Your task to perform on an android device: Show me recent news Image 0: 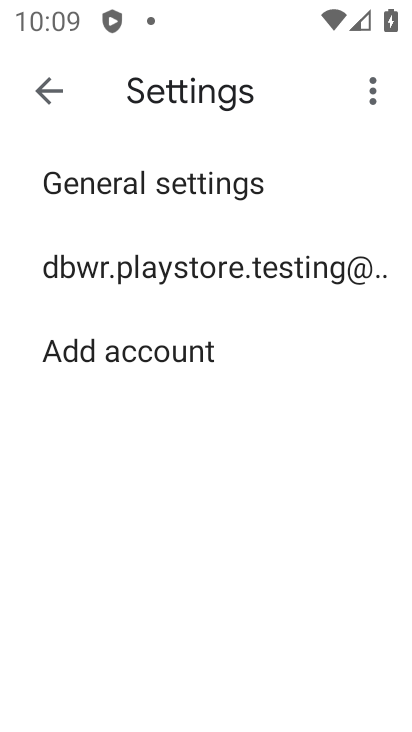
Step 0: press home button
Your task to perform on an android device: Show me recent news Image 1: 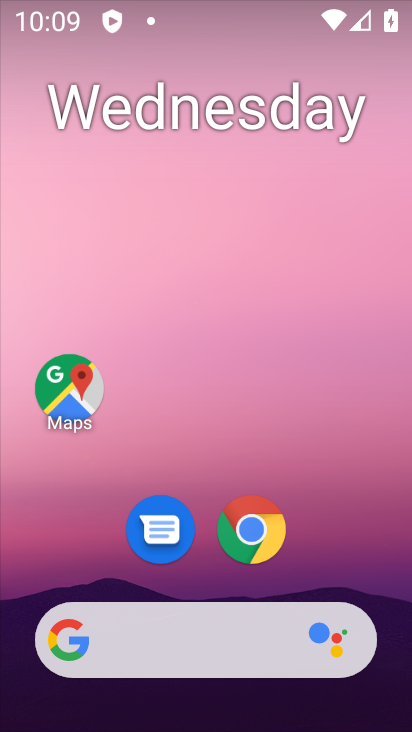
Step 1: task complete